Your task to perform on an android device: Find coffee shops on Maps Image 0: 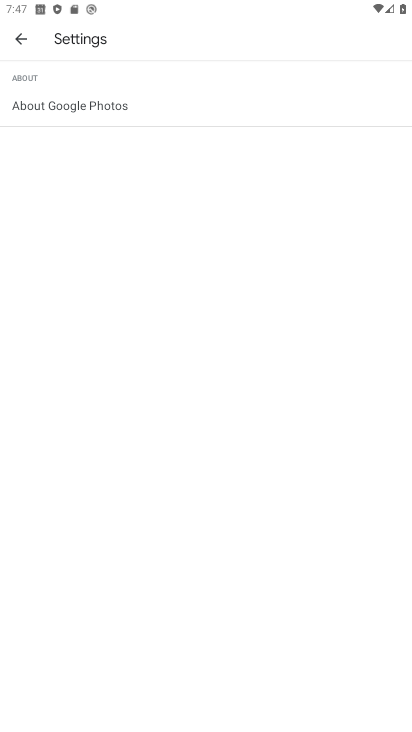
Step 0: task complete